Your task to perform on an android device: turn on bluetooth scan Image 0: 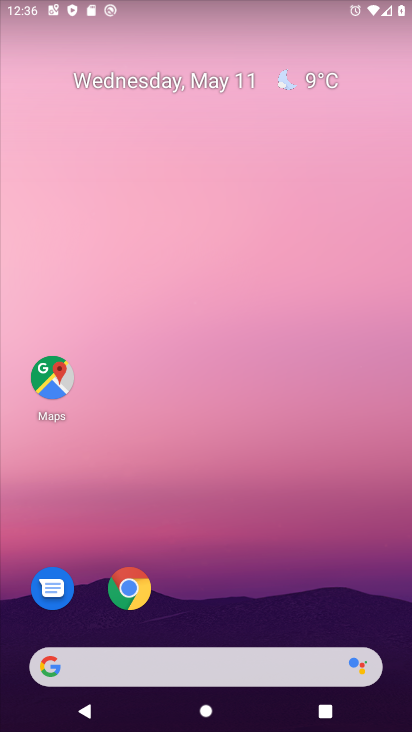
Step 0: drag from (253, 628) to (307, 2)
Your task to perform on an android device: turn on bluetooth scan Image 1: 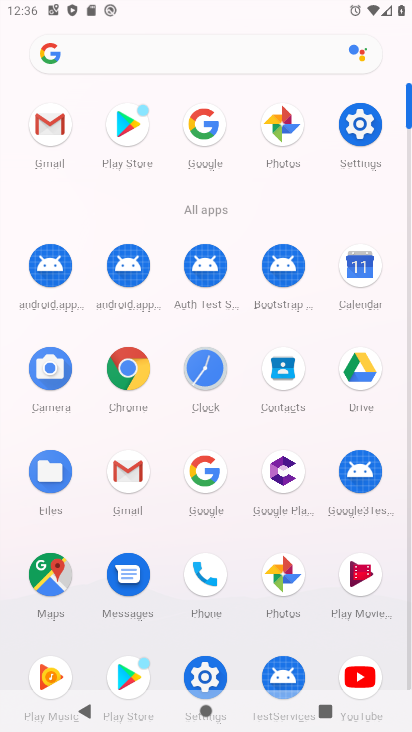
Step 1: click (358, 134)
Your task to perform on an android device: turn on bluetooth scan Image 2: 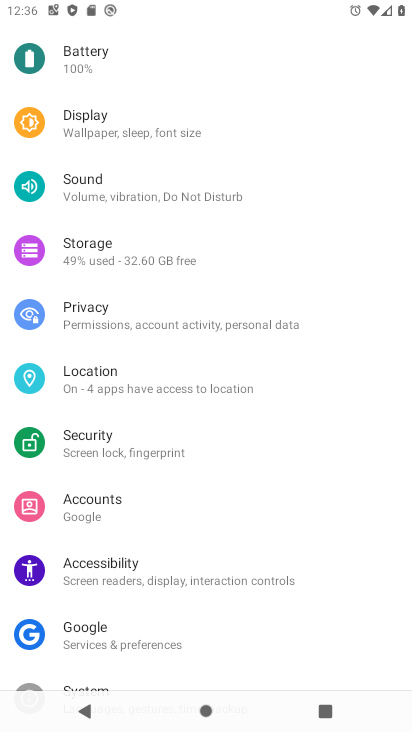
Step 2: click (95, 378)
Your task to perform on an android device: turn on bluetooth scan Image 3: 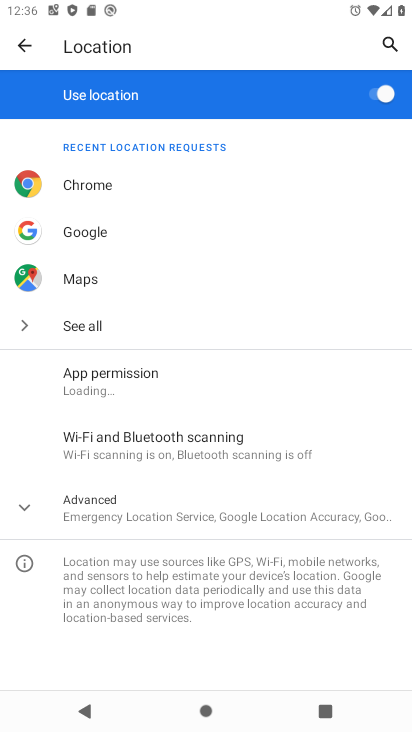
Step 3: click (173, 446)
Your task to perform on an android device: turn on bluetooth scan Image 4: 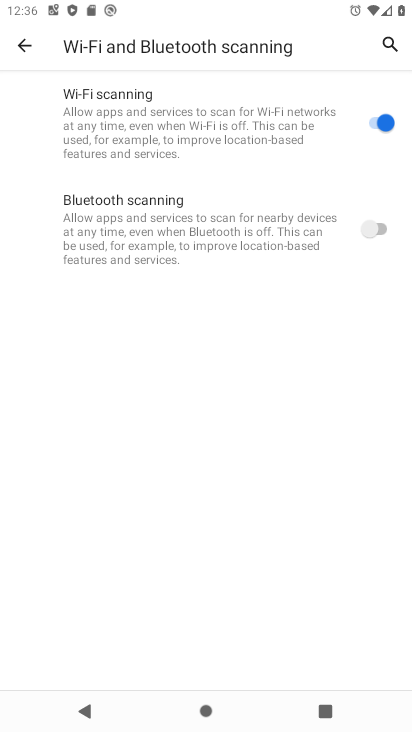
Step 4: click (369, 228)
Your task to perform on an android device: turn on bluetooth scan Image 5: 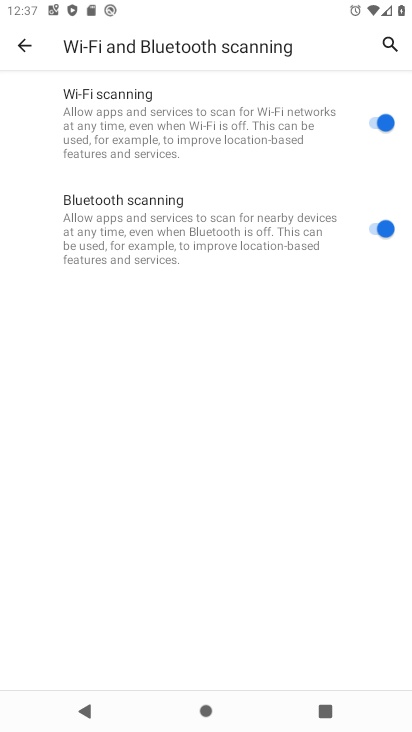
Step 5: task complete